Your task to perform on an android device: turn off wifi Image 0: 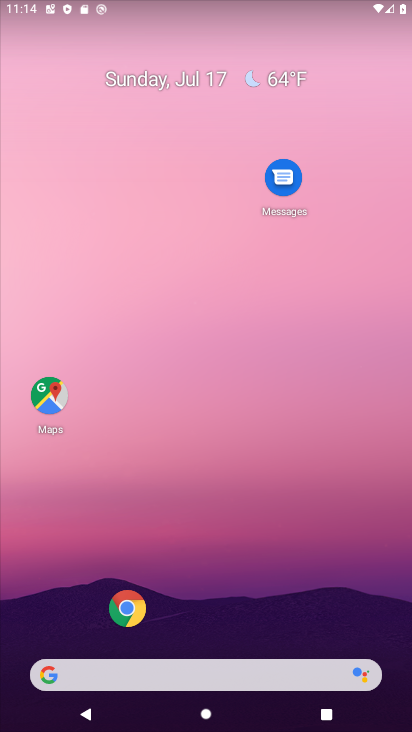
Step 0: drag from (31, 715) to (175, 27)
Your task to perform on an android device: turn off wifi Image 1: 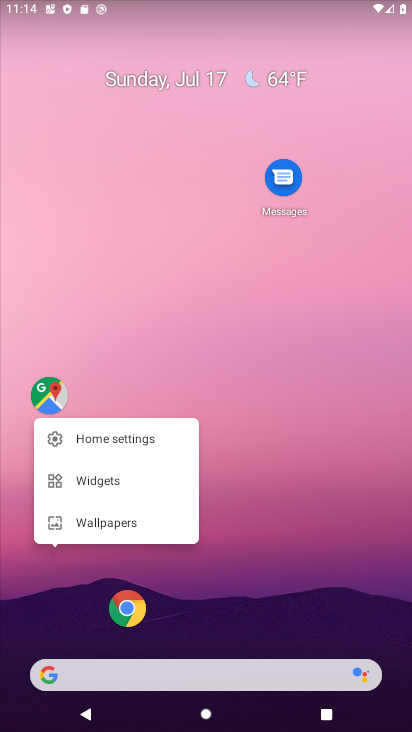
Step 1: drag from (35, 708) to (240, 96)
Your task to perform on an android device: turn off wifi Image 2: 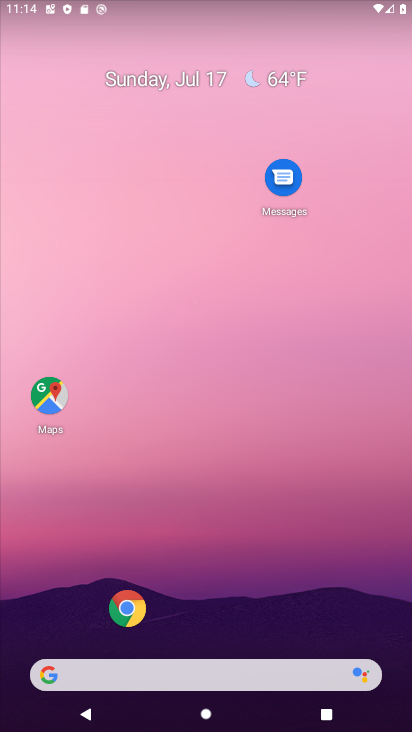
Step 2: drag from (27, 696) to (203, 58)
Your task to perform on an android device: turn off wifi Image 3: 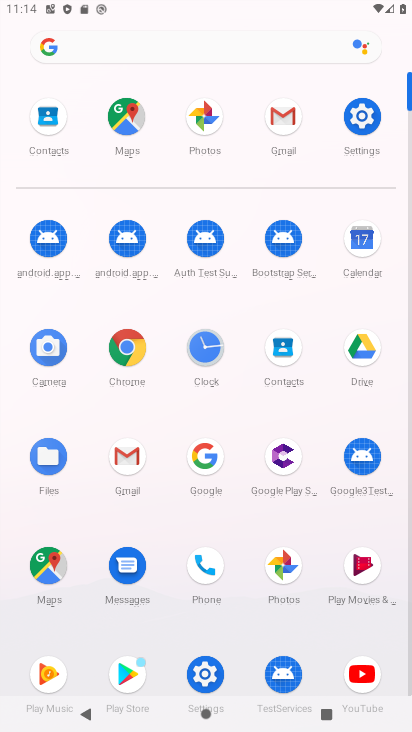
Step 3: click (204, 672)
Your task to perform on an android device: turn off wifi Image 4: 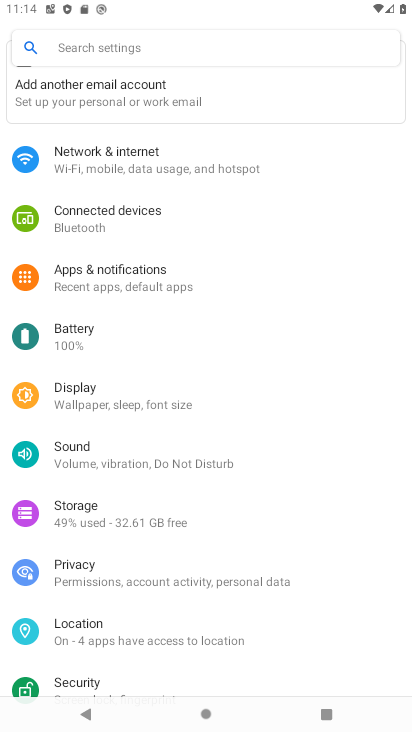
Step 4: click (148, 153)
Your task to perform on an android device: turn off wifi Image 5: 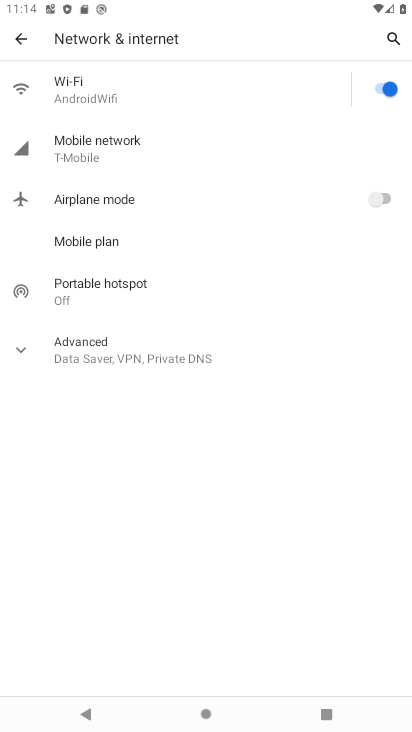
Step 5: click (392, 80)
Your task to perform on an android device: turn off wifi Image 6: 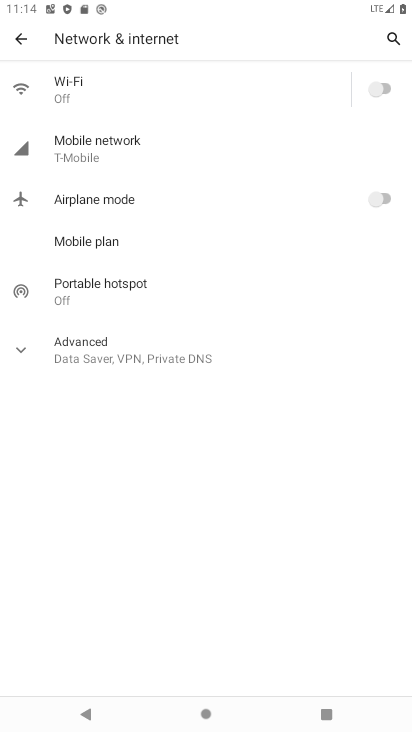
Step 6: task complete